Your task to perform on an android device: Show me productivity apps on the Play Store Image 0: 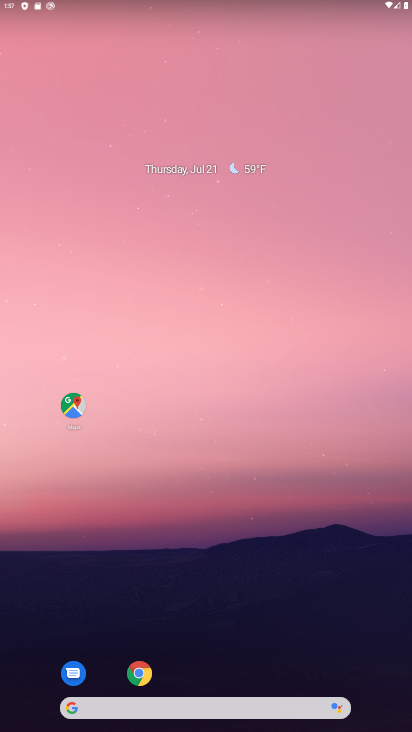
Step 0: drag from (212, 709) to (188, 191)
Your task to perform on an android device: Show me productivity apps on the Play Store Image 1: 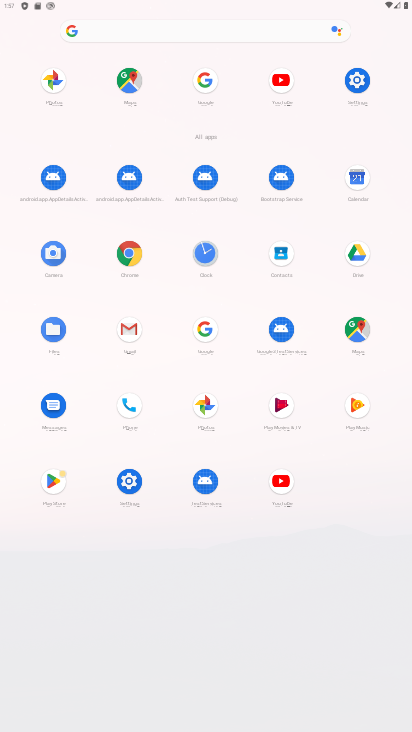
Step 1: click (54, 482)
Your task to perform on an android device: Show me productivity apps on the Play Store Image 2: 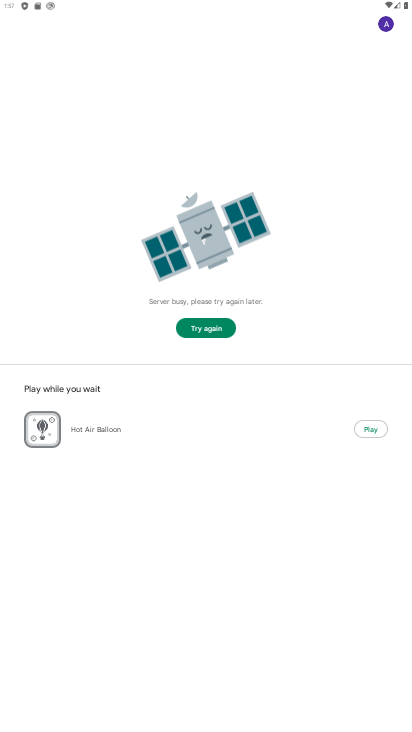
Step 2: click (213, 329)
Your task to perform on an android device: Show me productivity apps on the Play Store Image 3: 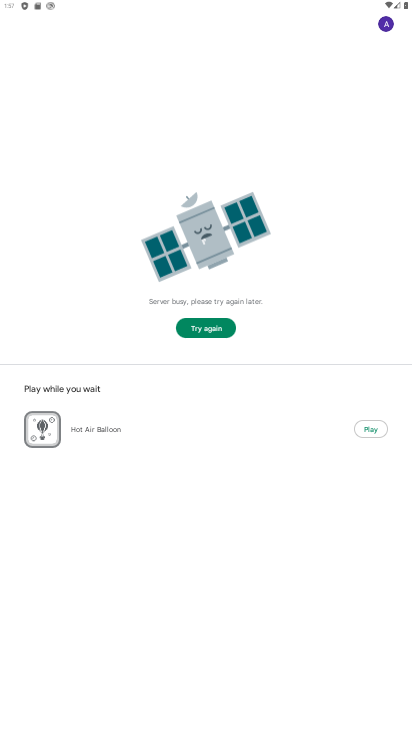
Step 3: click (213, 329)
Your task to perform on an android device: Show me productivity apps on the Play Store Image 4: 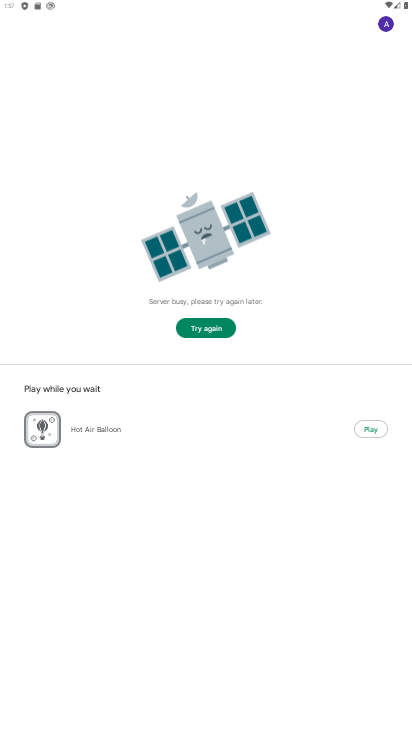
Step 4: task complete